Your task to perform on an android device: open wifi settings Image 0: 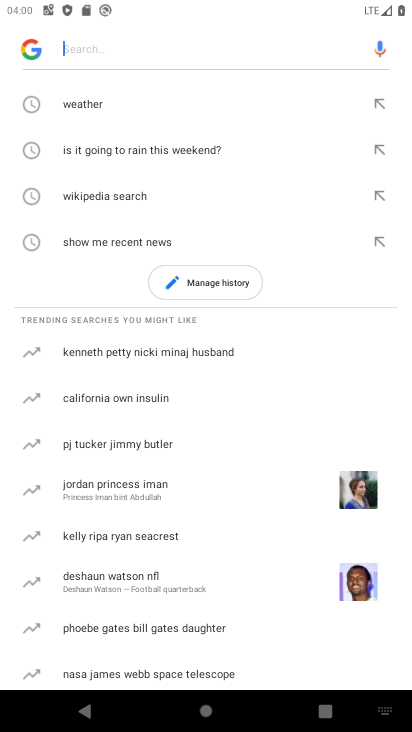
Step 0: press home button
Your task to perform on an android device: open wifi settings Image 1: 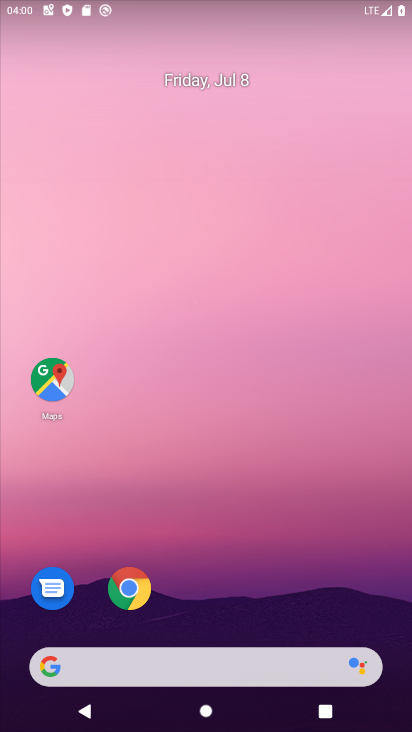
Step 1: drag from (216, 519) to (216, 13)
Your task to perform on an android device: open wifi settings Image 2: 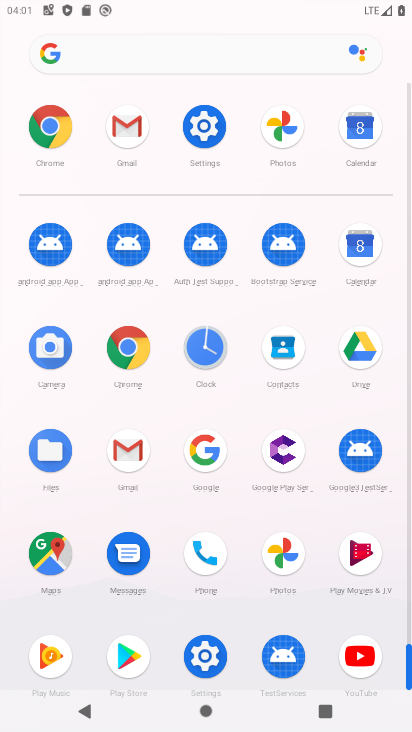
Step 2: click (202, 120)
Your task to perform on an android device: open wifi settings Image 3: 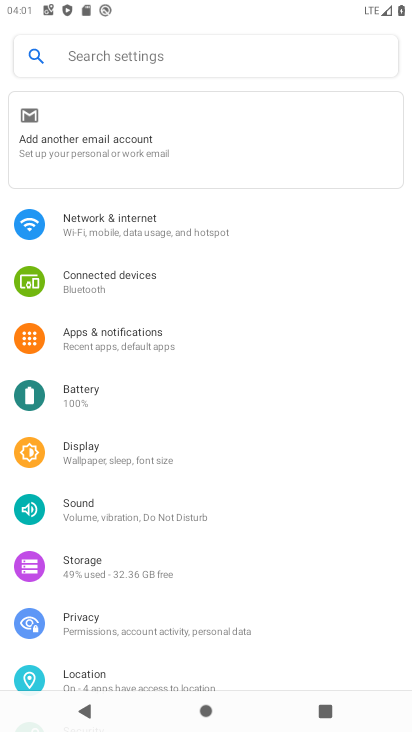
Step 3: click (123, 236)
Your task to perform on an android device: open wifi settings Image 4: 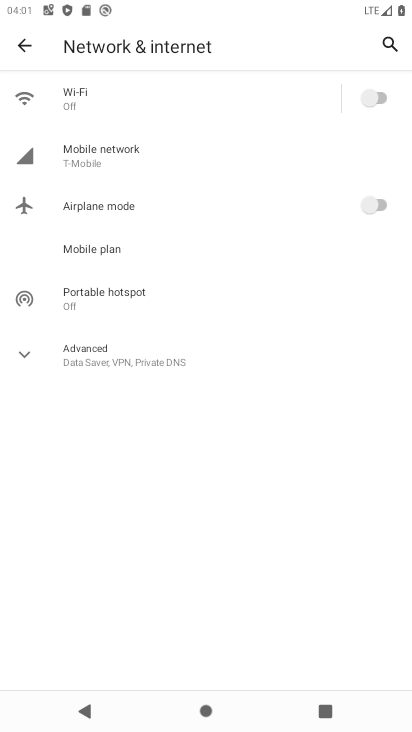
Step 4: click (148, 107)
Your task to perform on an android device: open wifi settings Image 5: 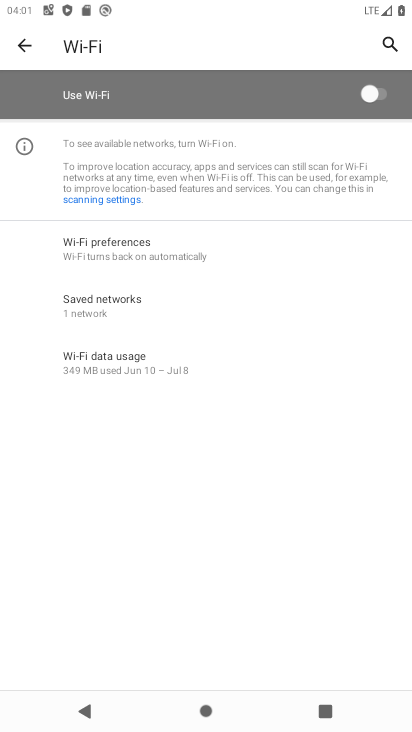
Step 5: task complete